Your task to perform on an android device: set the timer Image 0: 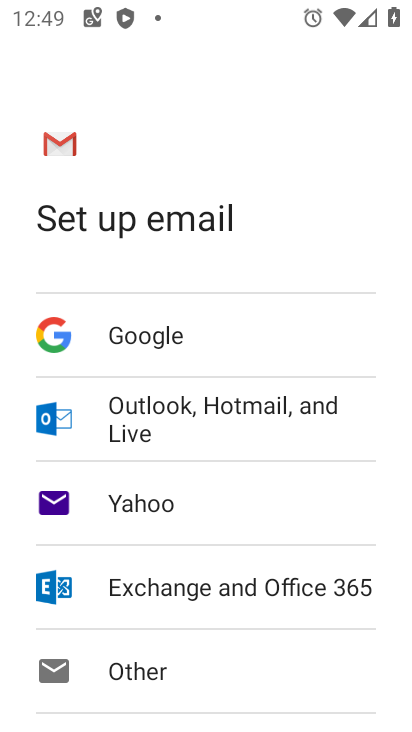
Step 0: press home button
Your task to perform on an android device: set the timer Image 1: 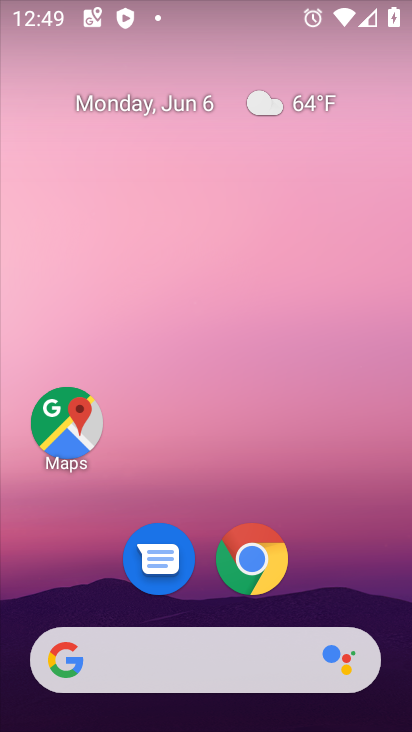
Step 1: drag from (230, 632) to (184, 83)
Your task to perform on an android device: set the timer Image 2: 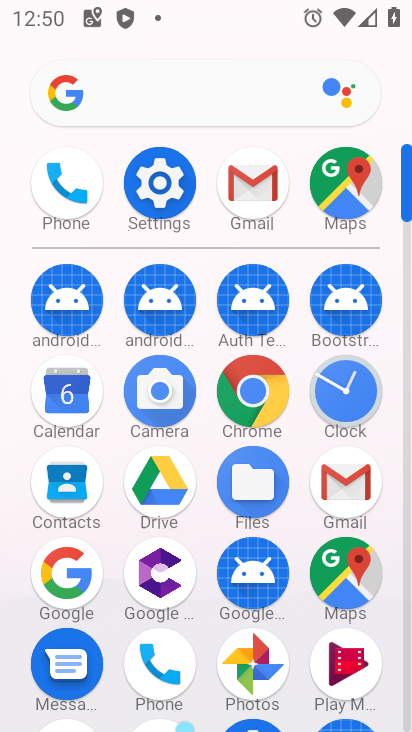
Step 2: click (347, 396)
Your task to perform on an android device: set the timer Image 3: 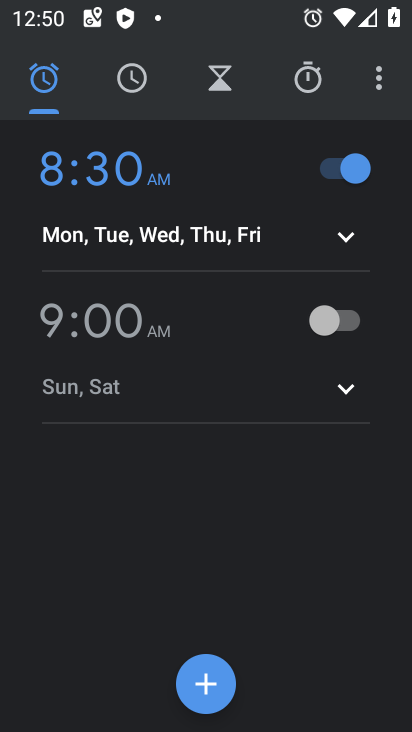
Step 3: click (200, 74)
Your task to perform on an android device: set the timer Image 4: 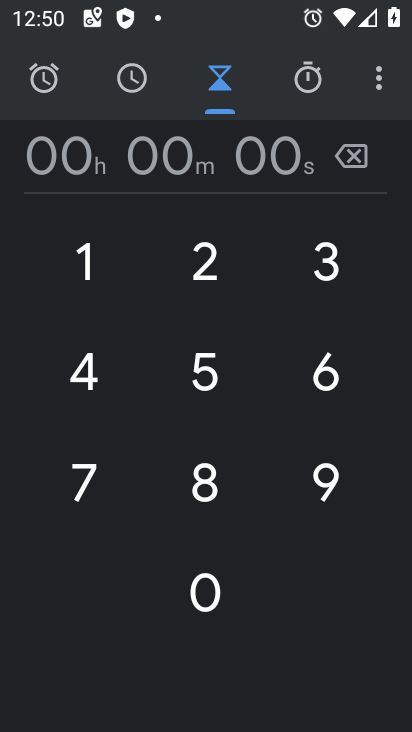
Step 4: click (216, 293)
Your task to perform on an android device: set the timer Image 5: 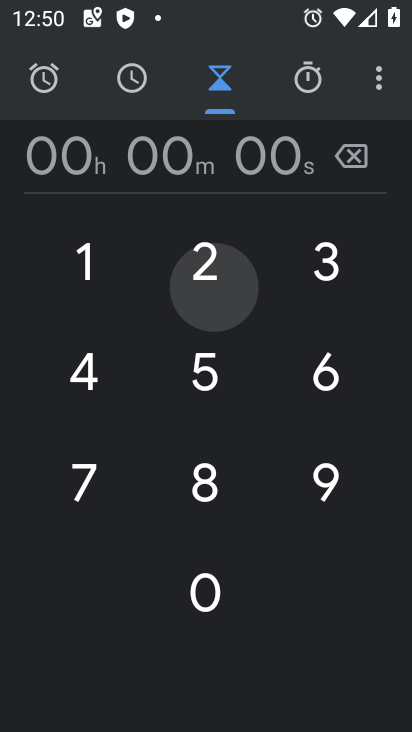
Step 5: click (211, 405)
Your task to perform on an android device: set the timer Image 6: 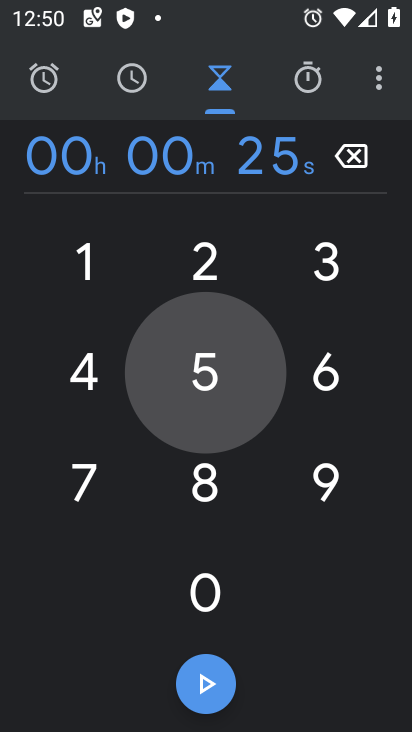
Step 6: click (124, 383)
Your task to perform on an android device: set the timer Image 7: 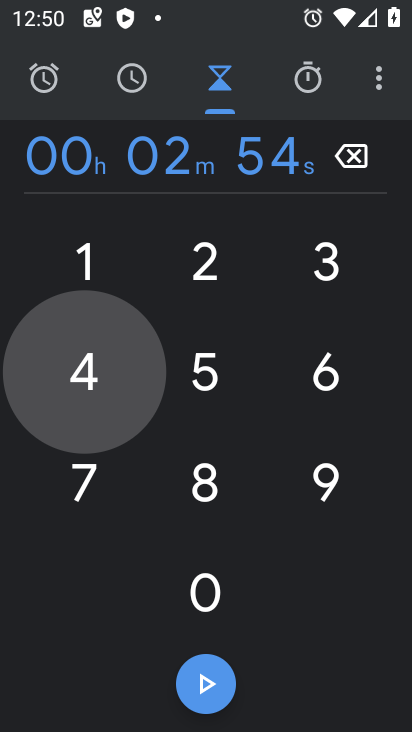
Step 7: click (205, 455)
Your task to perform on an android device: set the timer Image 8: 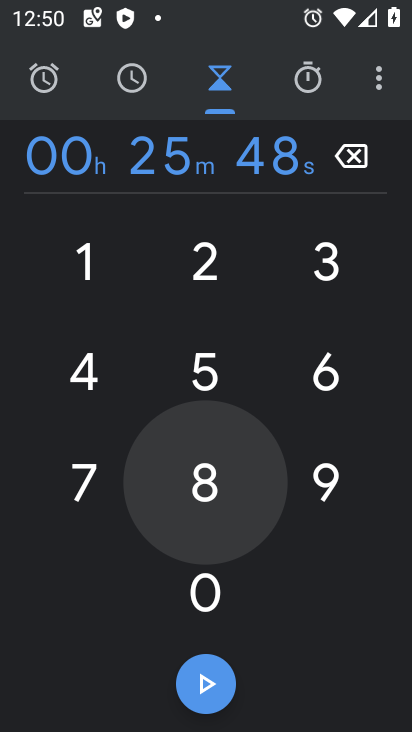
Step 8: click (62, 256)
Your task to perform on an android device: set the timer Image 9: 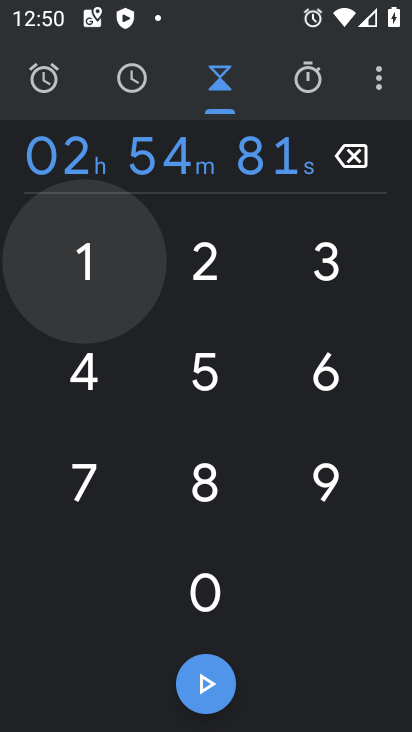
Step 9: click (345, 315)
Your task to perform on an android device: set the timer Image 10: 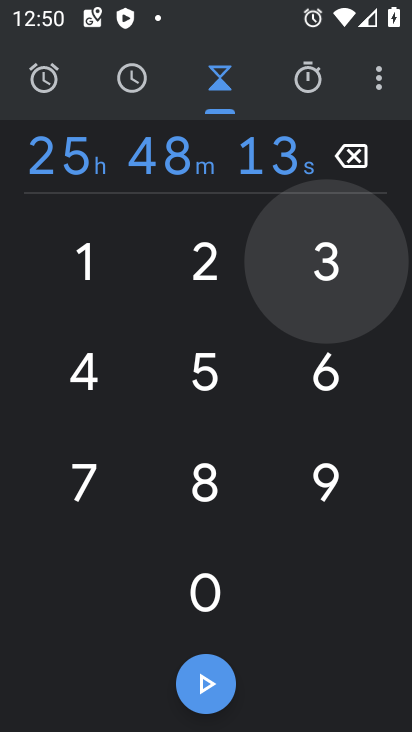
Step 10: click (215, 390)
Your task to perform on an android device: set the timer Image 11: 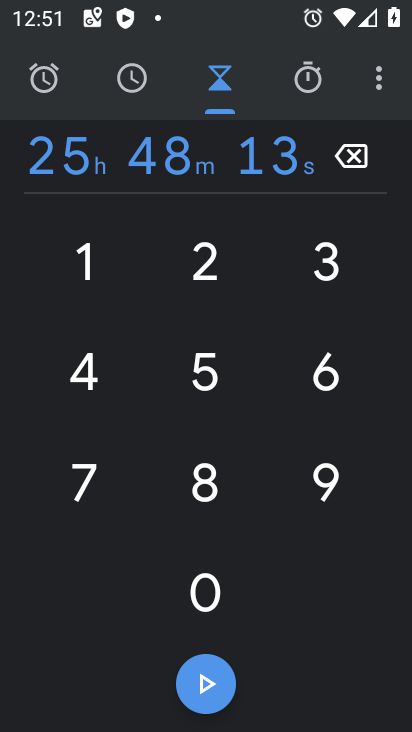
Step 11: task complete